Your task to perform on an android device: Go to Google maps Image 0: 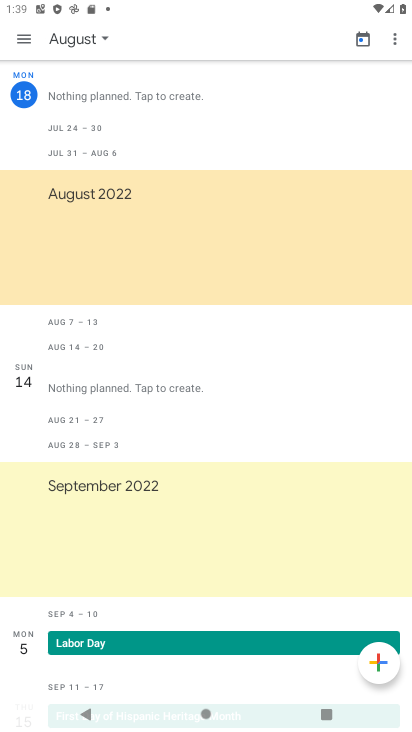
Step 0: press home button
Your task to perform on an android device: Go to Google maps Image 1: 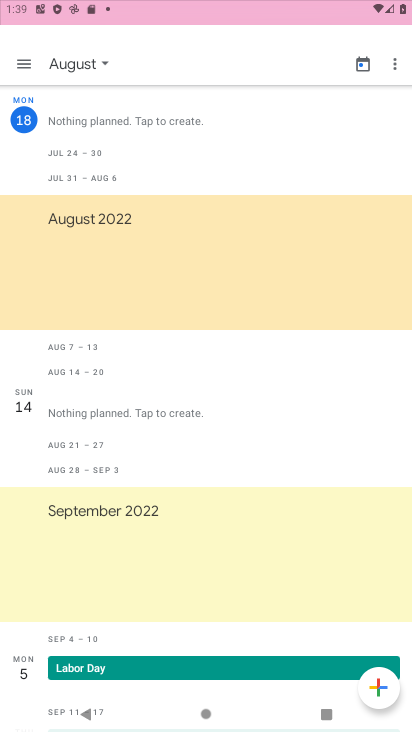
Step 1: drag from (355, 640) to (201, 78)
Your task to perform on an android device: Go to Google maps Image 2: 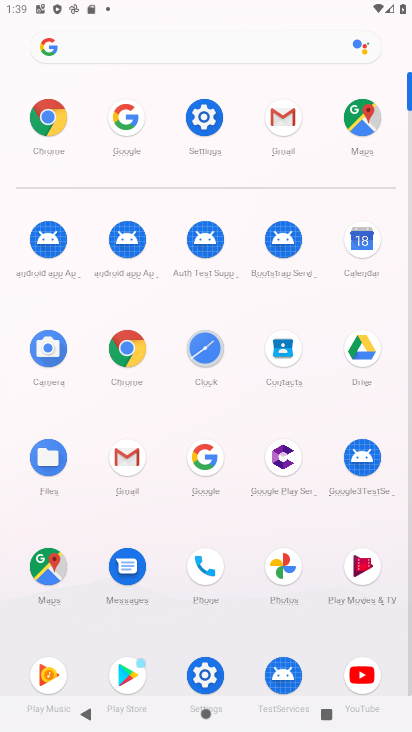
Step 2: click (59, 560)
Your task to perform on an android device: Go to Google maps Image 3: 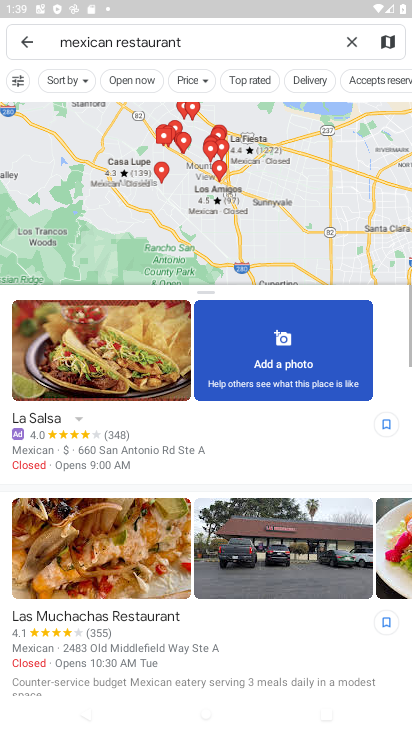
Step 3: click (350, 41)
Your task to perform on an android device: Go to Google maps Image 4: 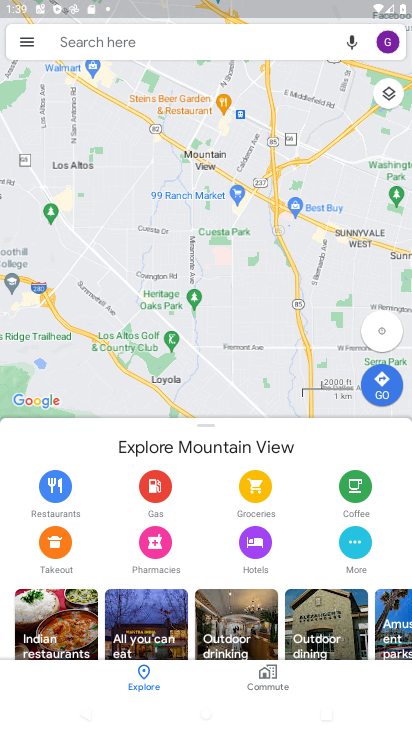
Step 4: task complete